Your task to perform on an android device: stop showing notifications on the lock screen Image 0: 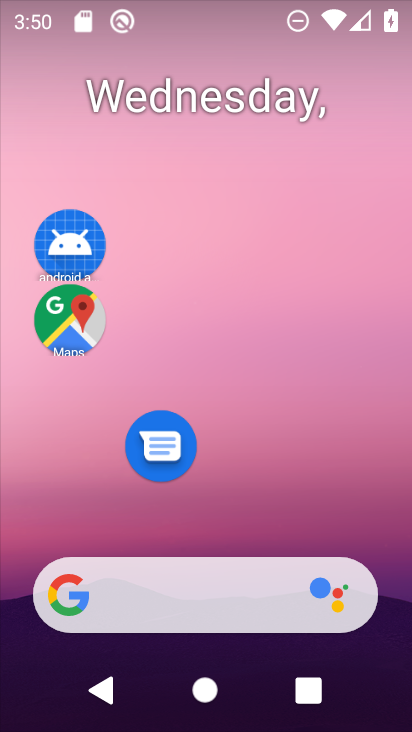
Step 0: drag from (326, 498) to (345, 189)
Your task to perform on an android device: stop showing notifications on the lock screen Image 1: 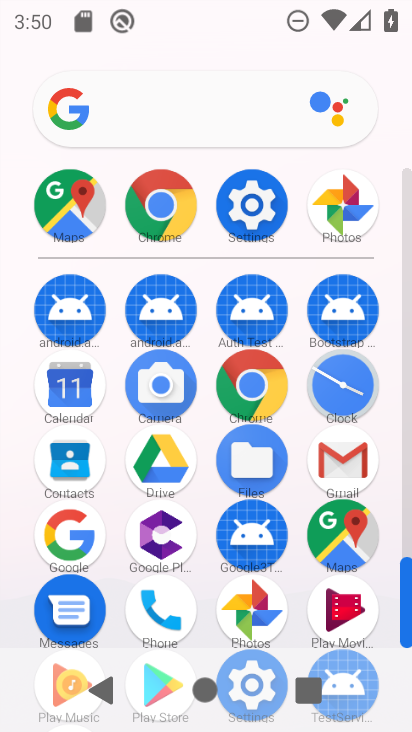
Step 1: click (253, 226)
Your task to perform on an android device: stop showing notifications on the lock screen Image 2: 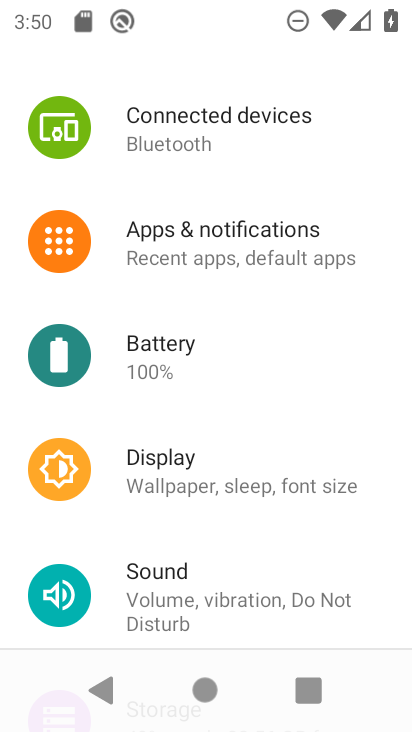
Step 2: drag from (215, 438) to (214, 235)
Your task to perform on an android device: stop showing notifications on the lock screen Image 3: 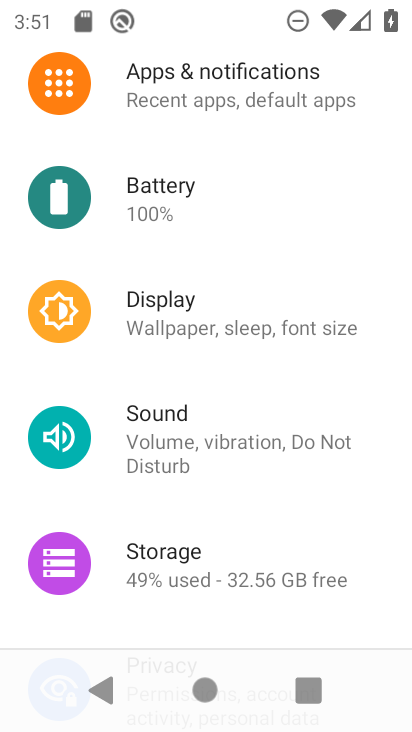
Step 3: click (240, 108)
Your task to perform on an android device: stop showing notifications on the lock screen Image 4: 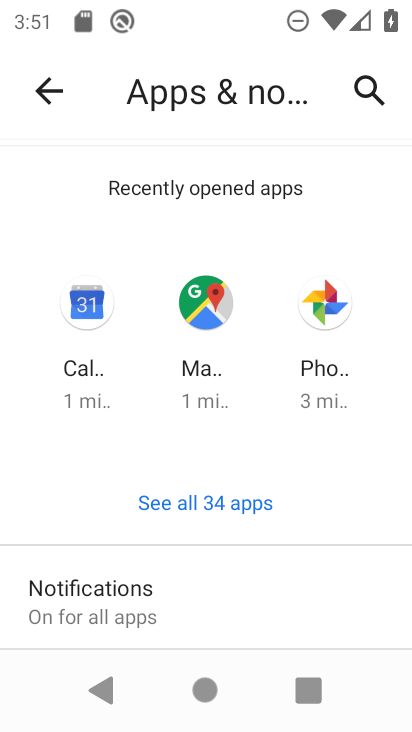
Step 4: drag from (267, 517) to (275, 256)
Your task to perform on an android device: stop showing notifications on the lock screen Image 5: 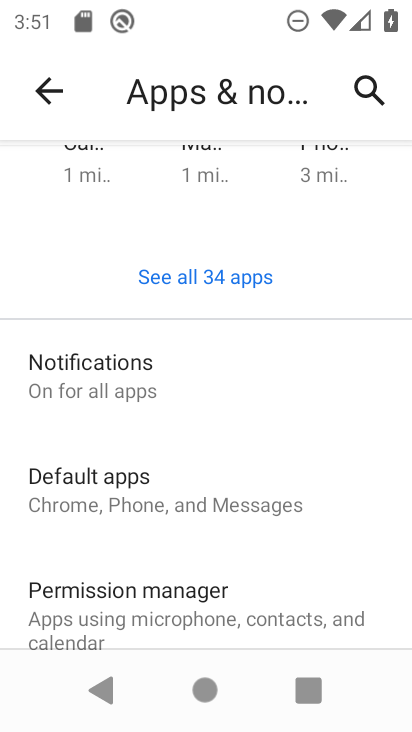
Step 5: drag from (193, 539) to (205, 231)
Your task to perform on an android device: stop showing notifications on the lock screen Image 6: 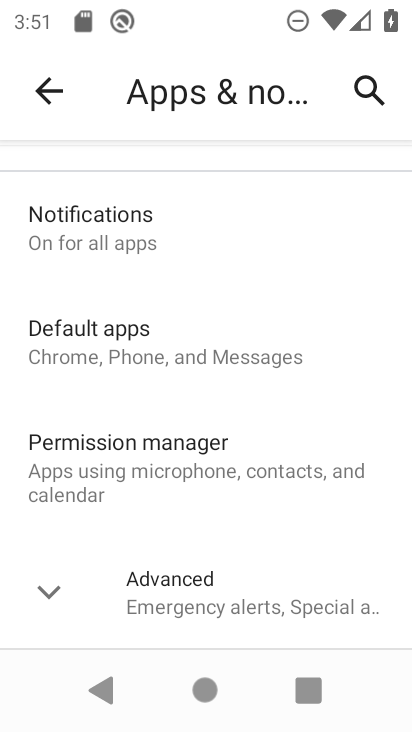
Step 6: click (175, 593)
Your task to perform on an android device: stop showing notifications on the lock screen Image 7: 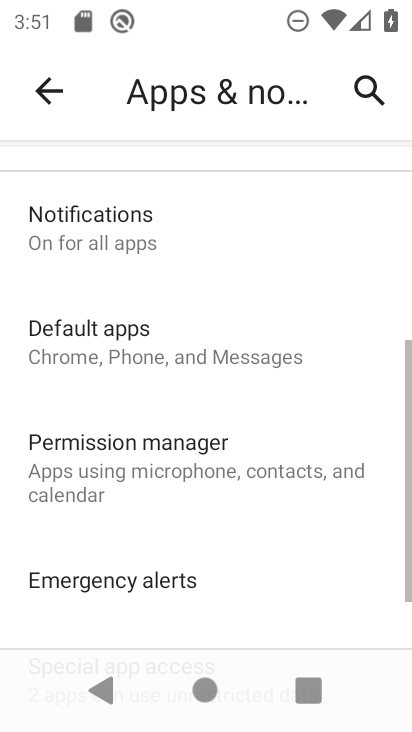
Step 7: click (162, 261)
Your task to perform on an android device: stop showing notifications on the lock screen Image 8: 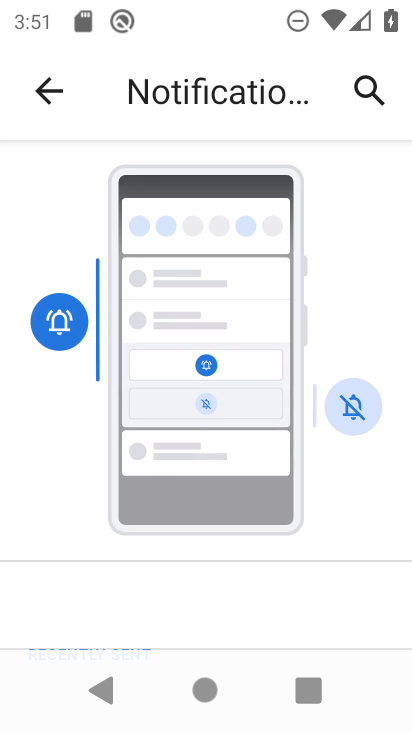
Step 8: drag from (174, 629) to (225, 260)
Your task to perform on an android device: stop showing notifications on the lock screen Image 9: 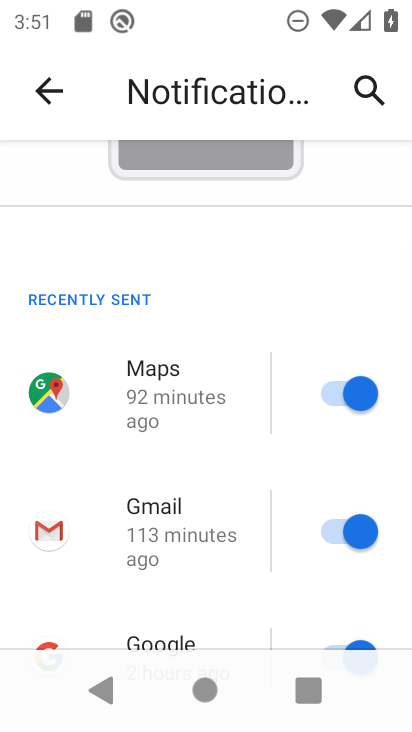
Step 9: drag from (226, 585) to (246, 345)
Your task to perform on an android device: stop showing notifications on the lock screen Image 10: 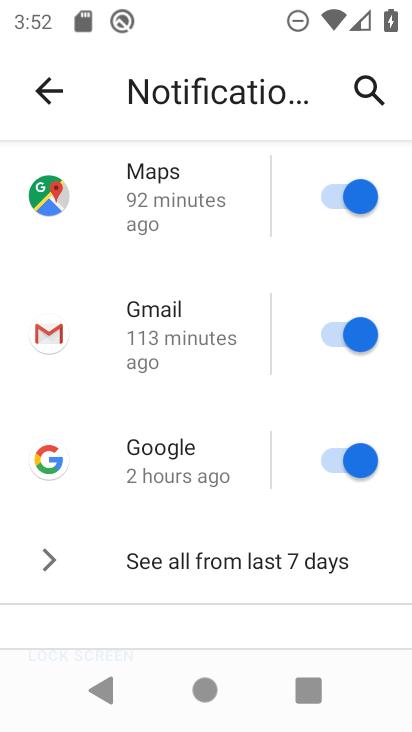
Step 10: drag from (210, 539) to (228, 307)
Your task to perform on an android device: stop showing notifications on the lock screen Image 11: 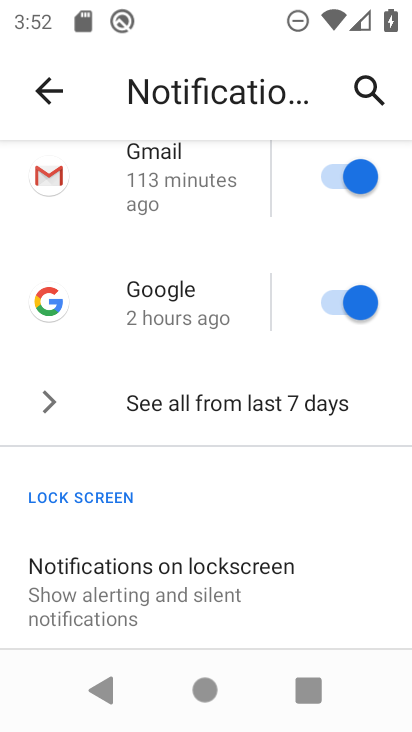
Step 11: click (197, 567)
Your task to perform on an android device: stop showing notifications on the lock screen Image 12: 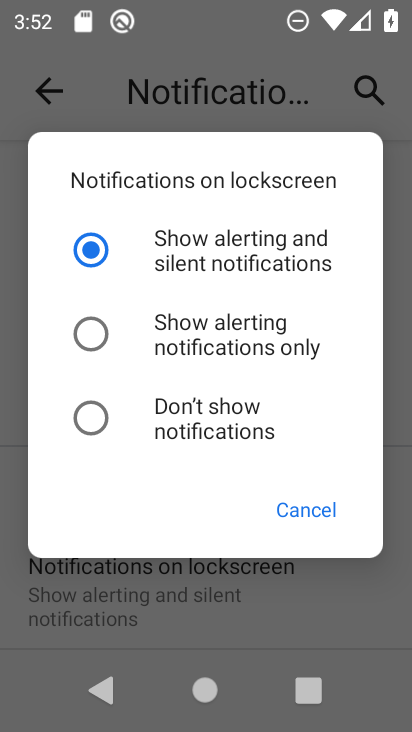
Step 12: click (224, 435)
Your task to perform on an android device: stop showing notifications on the lock screen Image 13: 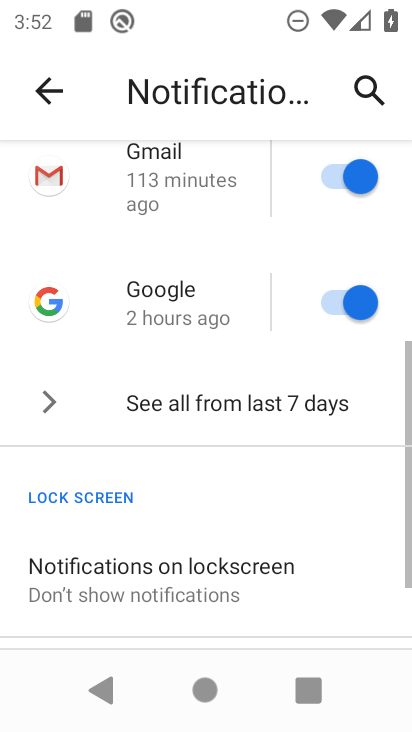
Step 13: task complete